Your task to perform on an android device: Go to battery settings Image 0: 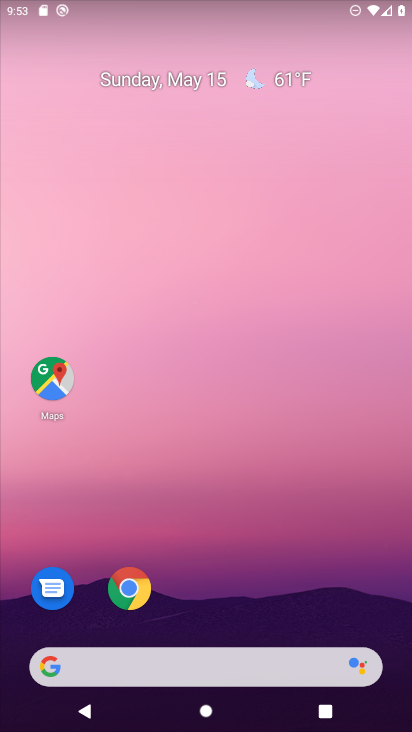
Step 0: drag from (245, 494) to (277, 151)
Your task to perform on an android device: Go to battery settings Image 1: 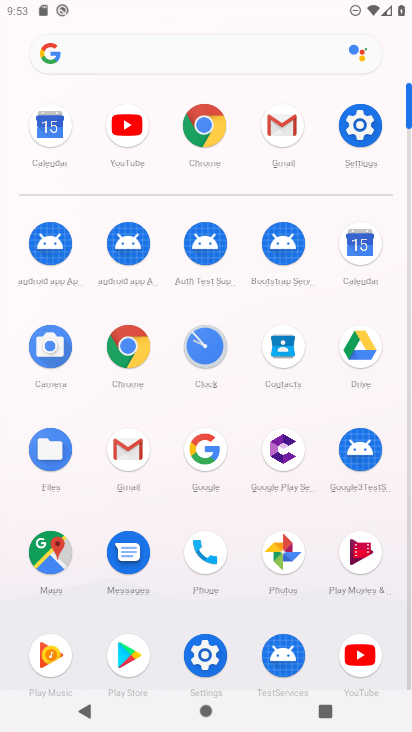
Step 1: click (197, 661)
Your task to perform on an android device: Go to battery settings Image 2: 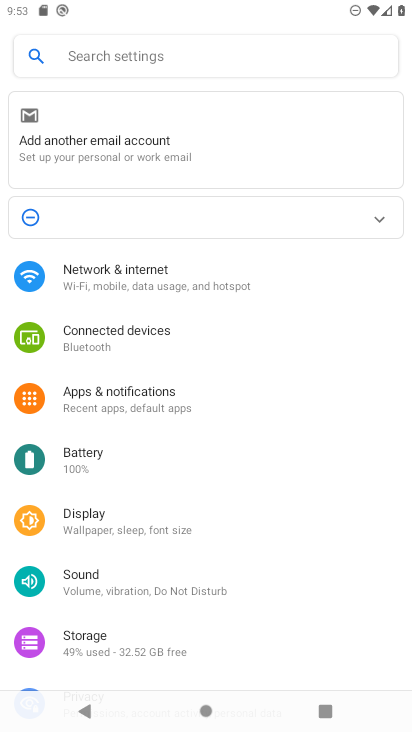
Step 2: click (126, 459)
Your task to perform on an android device: Go to battery settings Image 3: 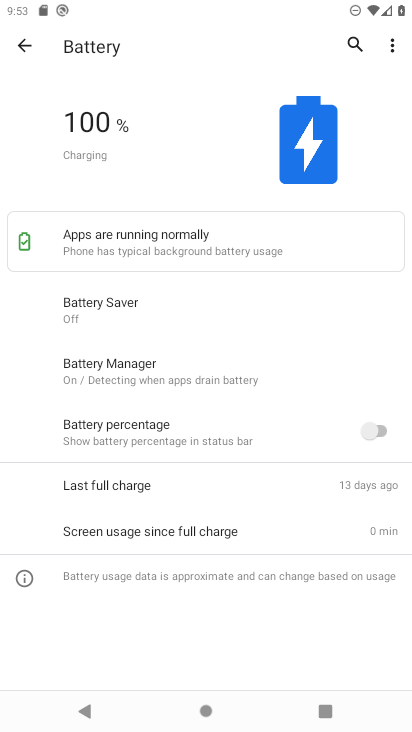
Step 3: task complete